Your task to perform on an android device: delete the emails in spam in the gmail app Image 0: 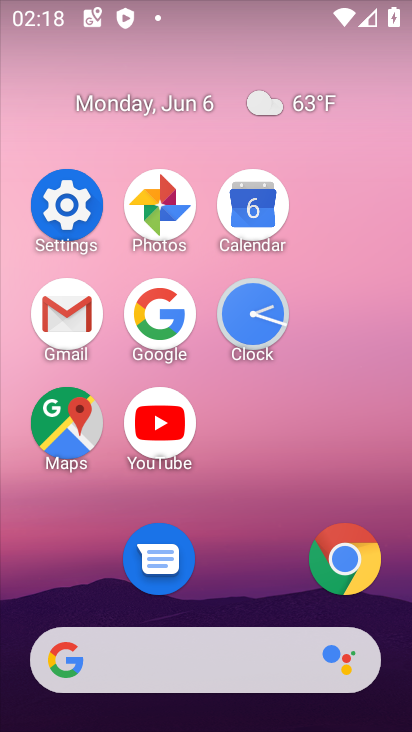
Step 0: click (61, 317)
Your task to perform on an android device: delete the emails in spam in the gmail app Image 1: 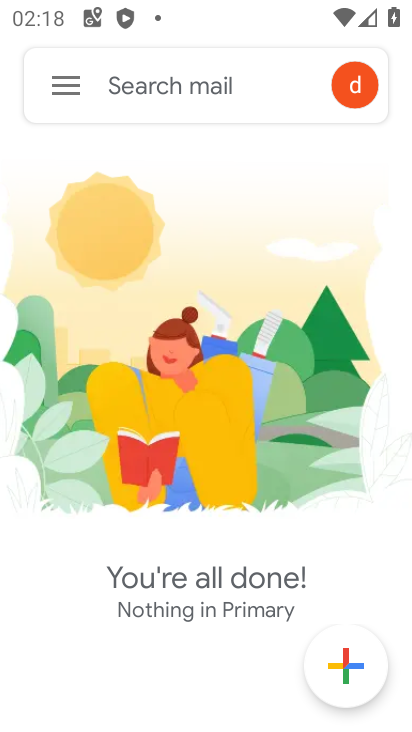
Step 1: click (79, 102)
Your task to perform on an android device: delete the emails in spam in the gmail app Image 2: 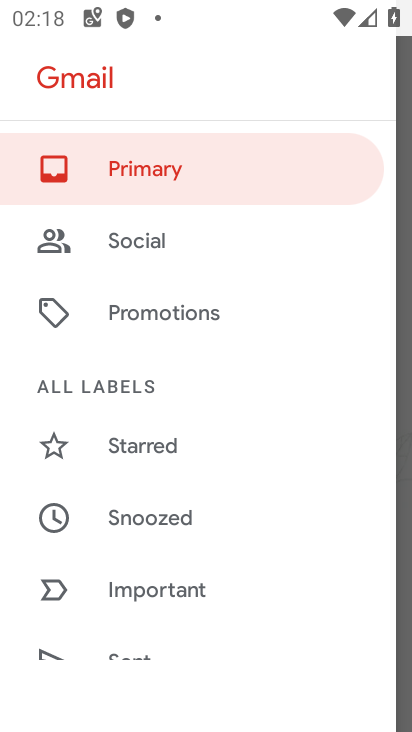
Step 2: drag from (205, 562) to (226, 248)
Your task to perform on an android device: delete the emails in spam in the gmail app Image 3: 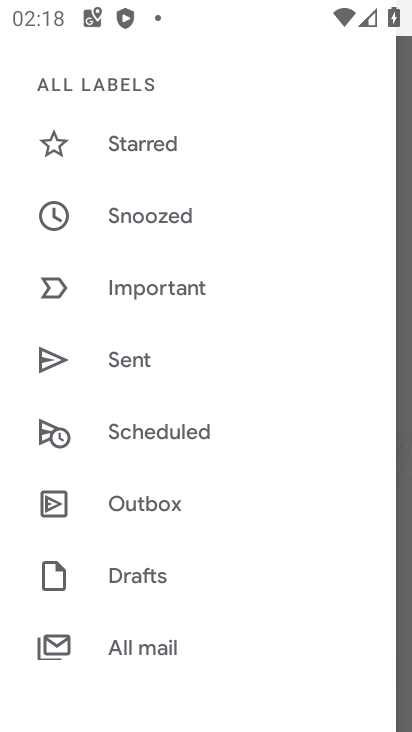
Step 3: drag from (144, 544) to (213, 209)
Your task to perform on an android device: delete the emails in spam in the gmail app Image 4: 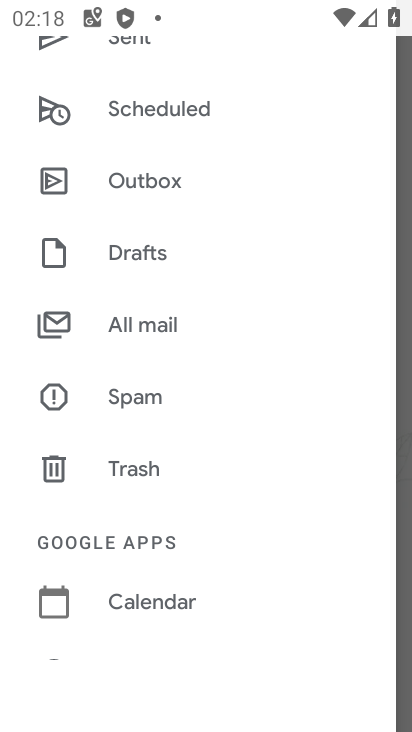
Step 4: click (200, 380)
Your task to perform on an android device: delete the emails in spam in the gmail app Image 5: 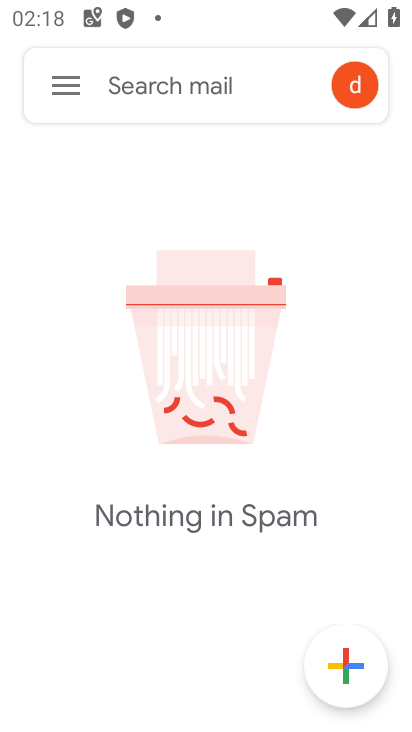
Step 5: task complete